Your task to perform on an android device: turn off airplane mode Image 0: 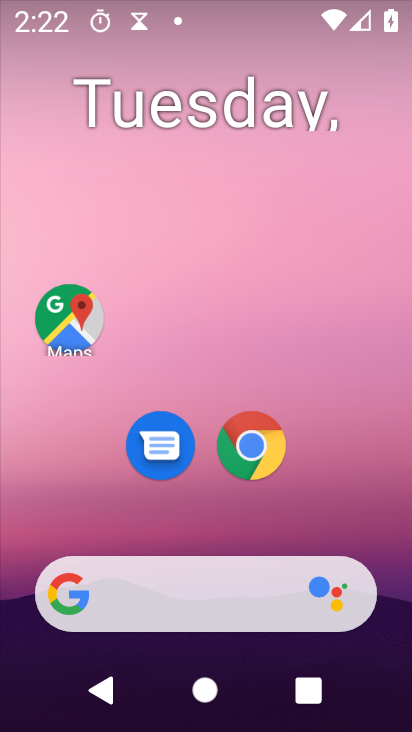
Step 0: drag from (293, 655) to (328, 7)
Your task to perform on an android device: turn off airplane mode Image 1: 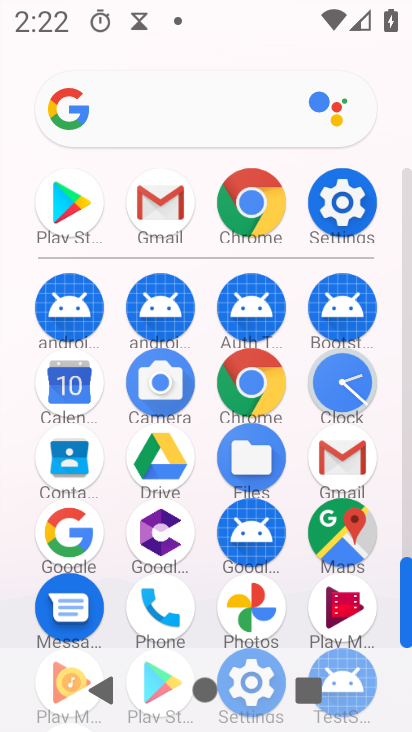
Step 1: click (355, 189)
Your task to perform on an android device: turn off airplane mode Image 2: 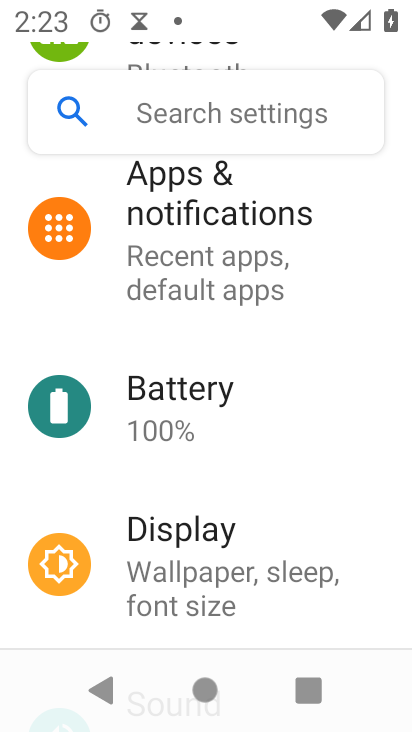
Step 2: drag from (208, 249) to (229, 619)
Your task to perform on an android device: turn off airplane mode Image 3: 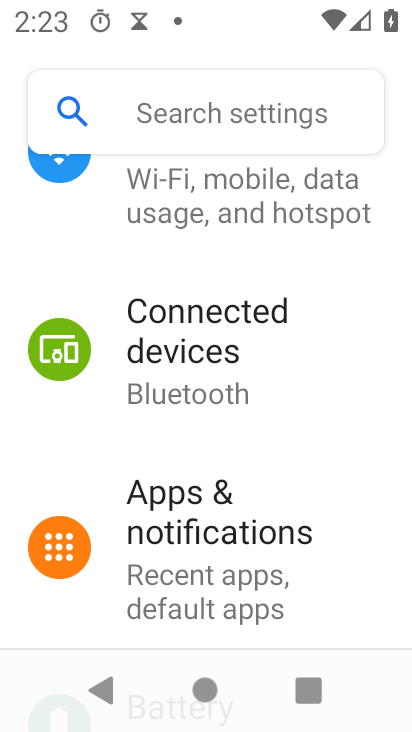
Step 3: click (228, 219)
Your task to perform on an android device: turn off airplane mode Image 4: 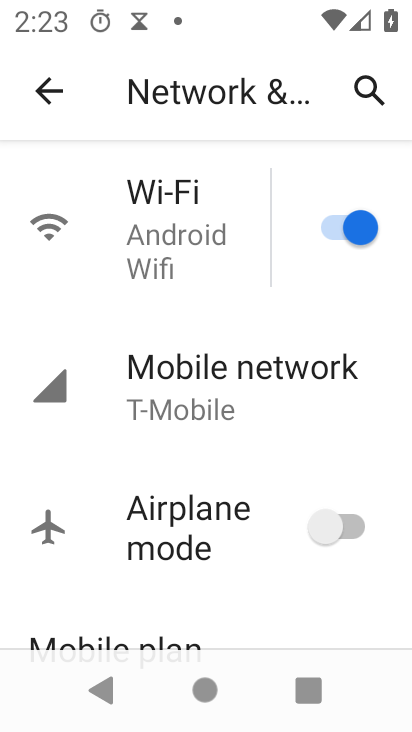
Step 4: task complete